Your task to perform on an android device: Open ESPN.com Image 0: 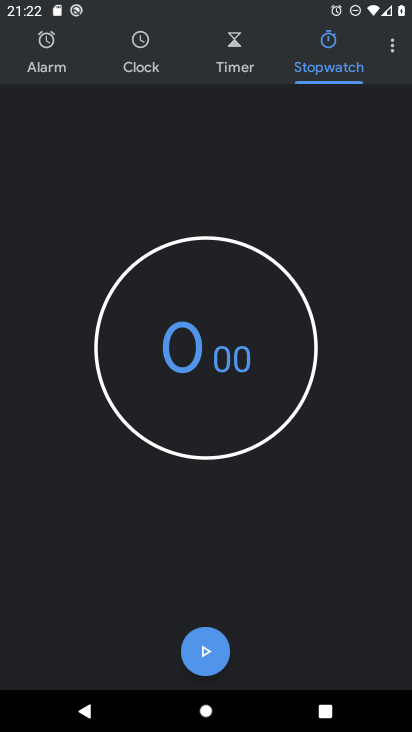
Step 0: press home button
Your task to perform on an android device: Open ESPN.com Image 1: 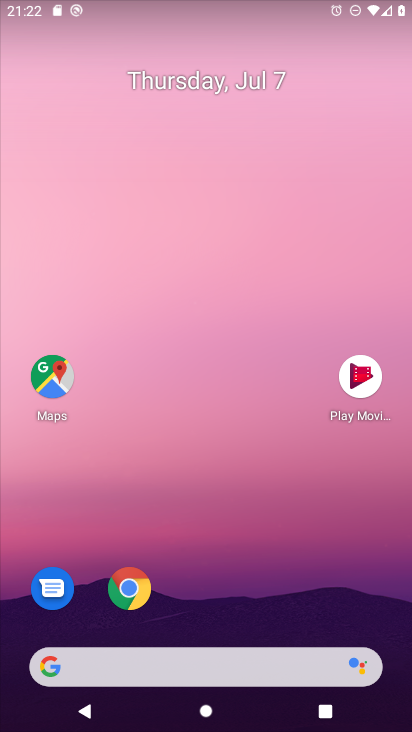
Step 1: click (125, 583)
Your task to perform on an android device: Open ESPN.com Image 2: 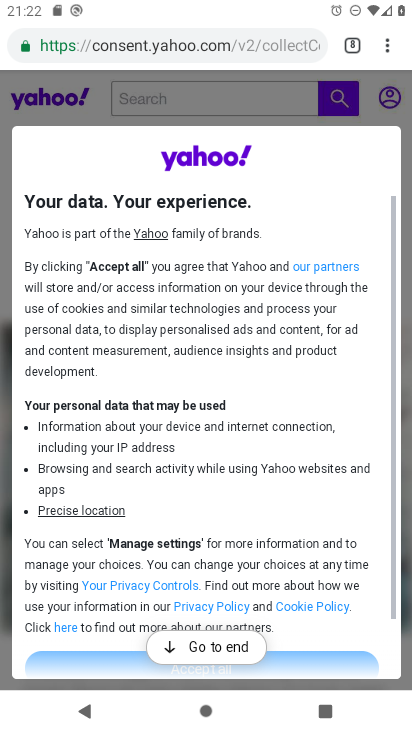
Step 2: click (390, 33)
Your task to perform on an android device: Open ESPN.com Image 3: 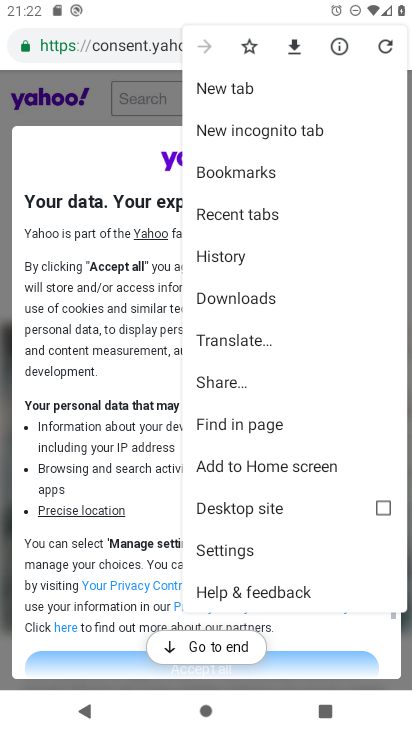
Step 3: click (279, 85)
Your task to perform on an android device: Open ESPN.com Image 4: 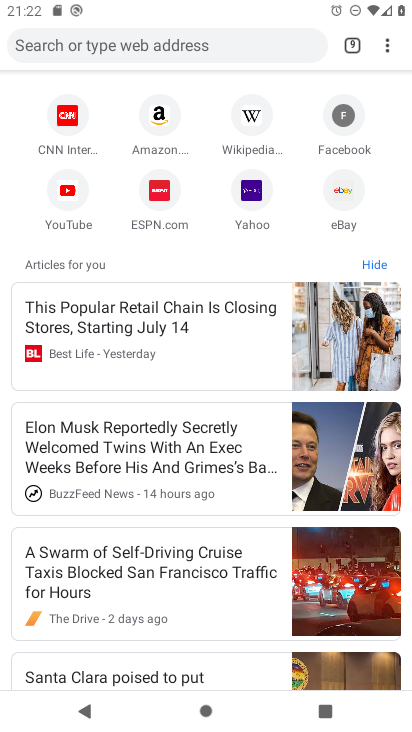
Step 4: click (152, 192)
Your task to perform on an android device: Open ESPN.com Image 5: 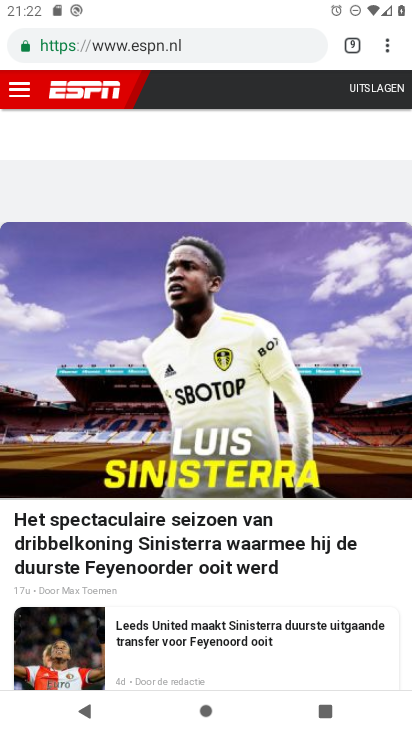
Step 5: task complete